Your task to perform on an android device: Open the calendar and show me this week's events Image 0: 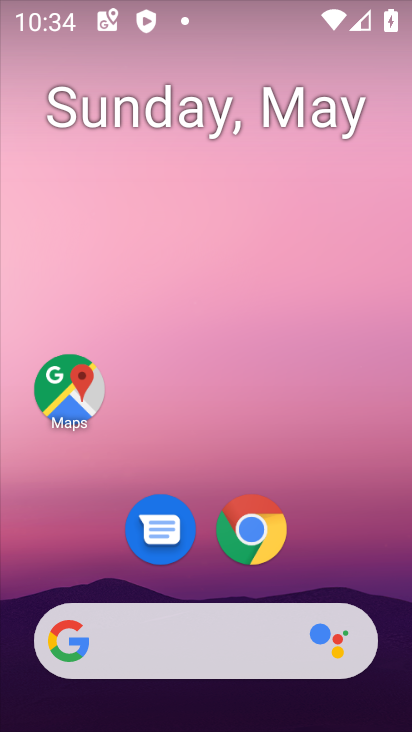
Step 0: drag from (205, 627) to (153, 113)
Your task to perform on an android device: Open the calendar and show me this week's events Image 1: 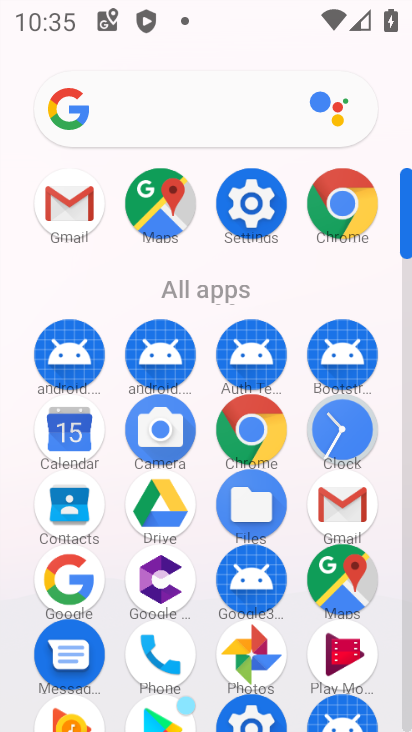
Step 1: click (67, 421)
Your task to perform on an android device: Open the calendar and show me this week's events Image 2: 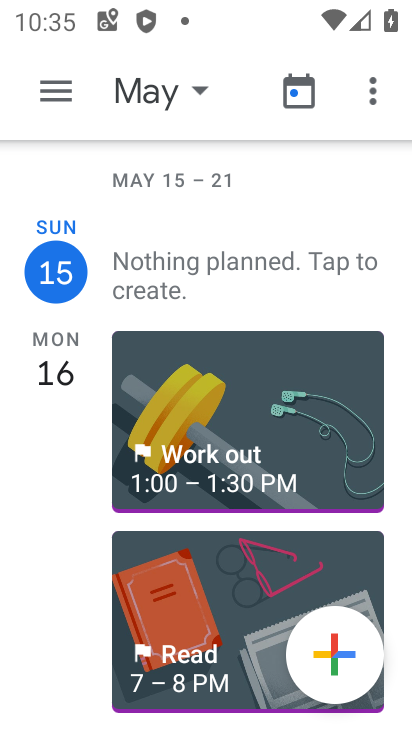
Step 2: click (48, 92)
Your task to perform on an android device: Open the calendar and show me this week's events Image 3: 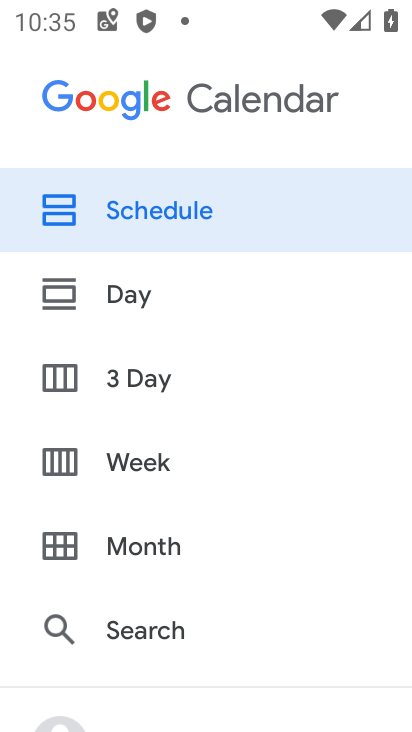
Step 3: click (148, 460)
Your task to perform on an android device: Open the calendar and show me this week's events Image 4: 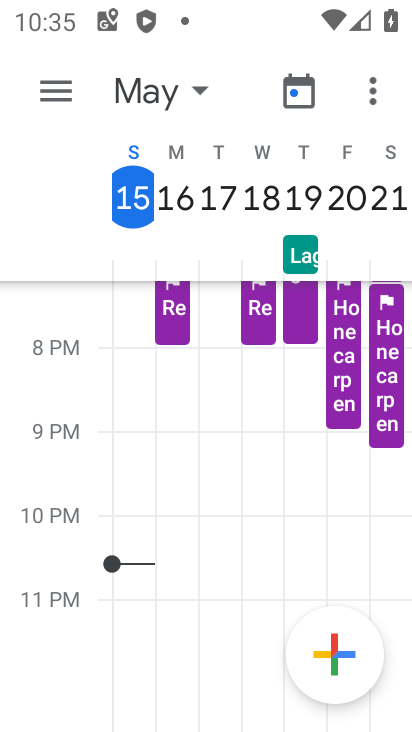
Step 4: task complete